Your task to perform on an android device: Do I have any events today? Image 0: 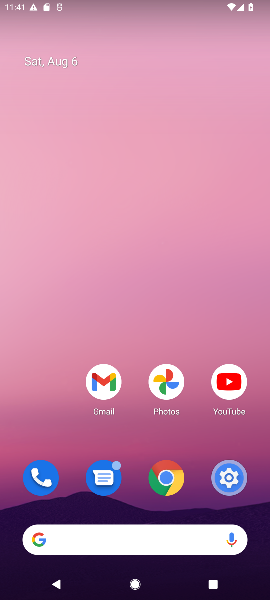
Step 0: drag from (110, 525) to (110, 169)
Your task to perform on an android device: Do I have any events today? Image 1: 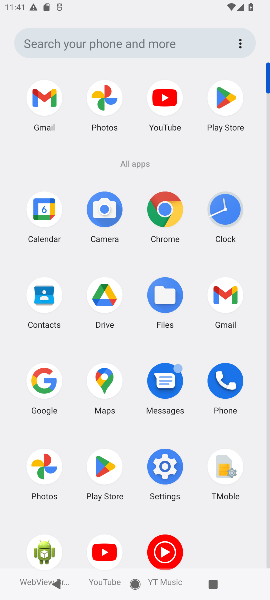
Step 1: click (49, 213)
Your task to perform on an android device: Do I have any events today? Image 2: 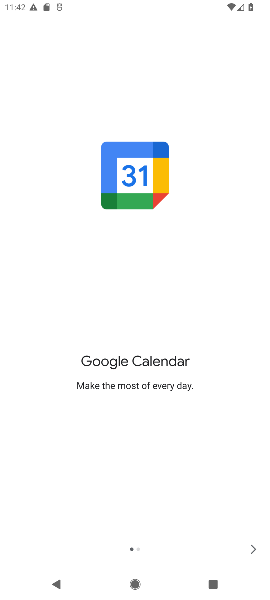
Step 2: click (250, 555)
Your task to perform on an android device: Do I have any events today? Image 3: 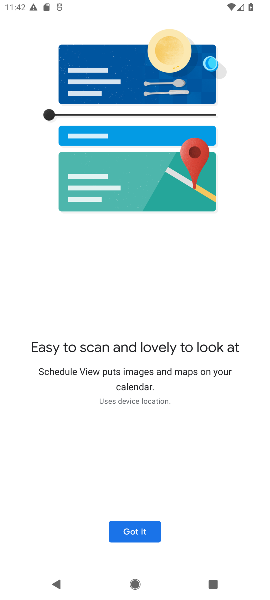
Step 3: click (131, 532)
Your task to perform on an android device: Do I have any events today? Image 4: 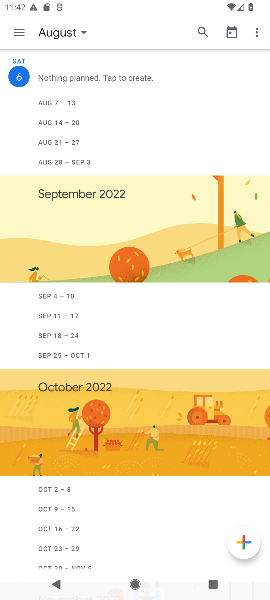
Step 4: click (62, 36)
Your task to perform on an android device: Do I have any events today? Image 5: 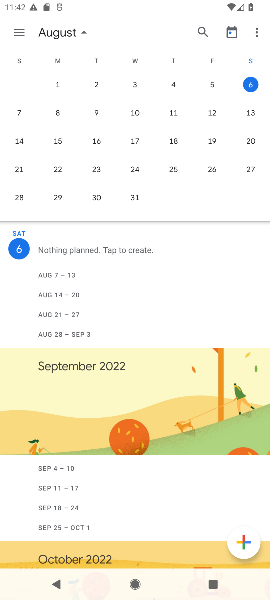
Step 5: click (248, 87)
Your task to perform on an android device: Do I have any events today? Image 6: 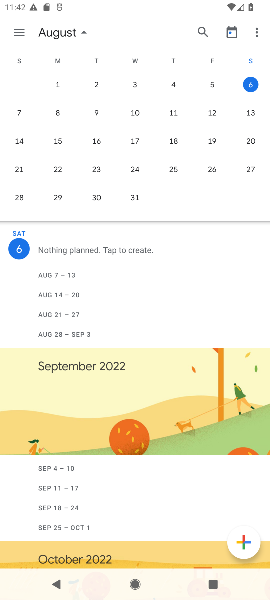
Step 6: task complete